Your task to perform on an android device: Clear the cart on target.com. Search for logitech g910 on target.com, select the first entry, add it to the cart, then select checkout. Image 0: 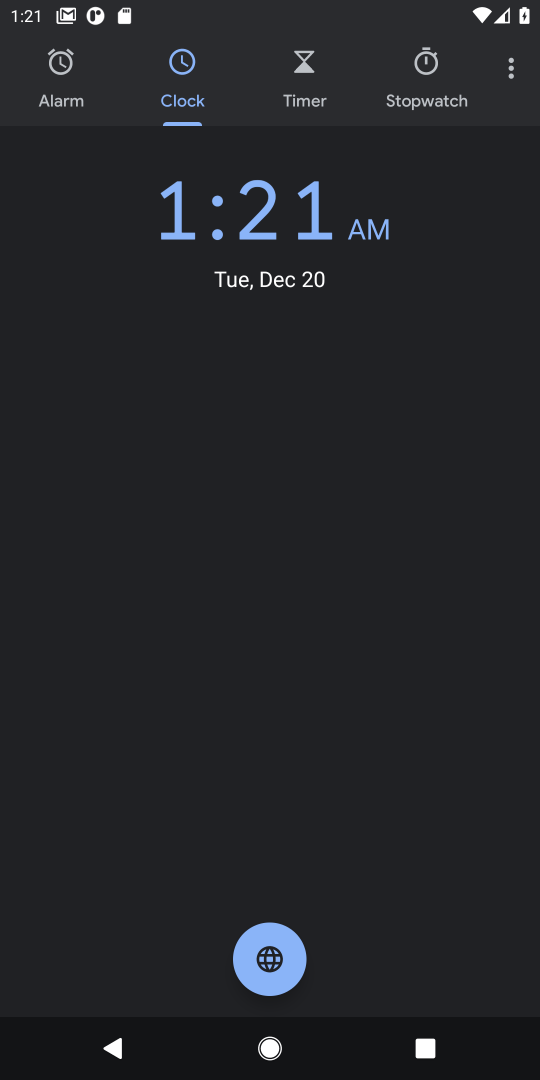
Step 0: press home button
Your task to perform on an android device: Clear the cart on target.com. Search for logitech g910 on target.com, select the first entry, add it to the cart, then select checkout. Image 1: 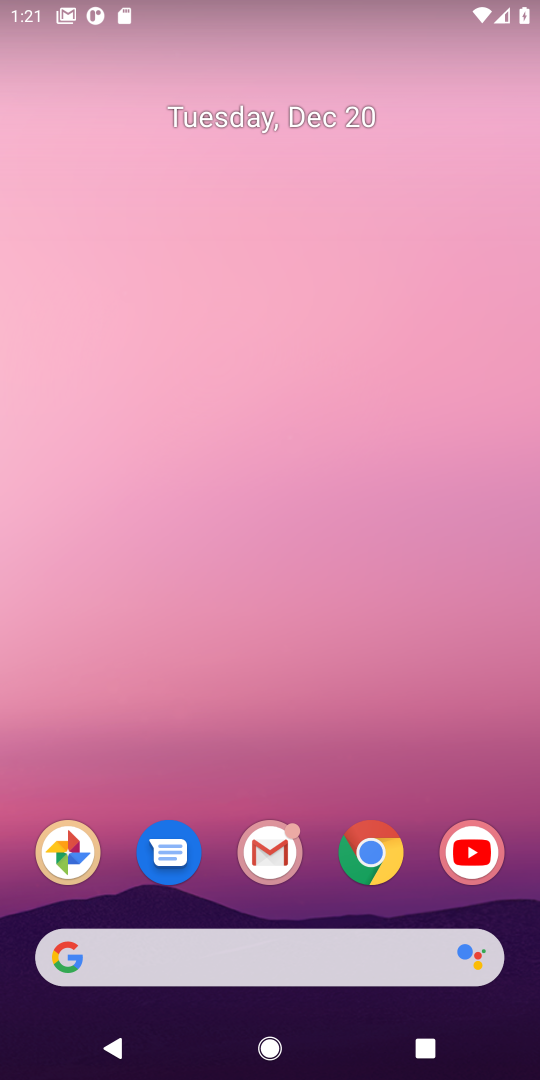
Step 1: click (371, 857)
Your task to perform on an android device: Clear the cart on target.com. Search for logitech g910 on target.com, select the first entry, add it to the cart, then select checkout. Image 2: 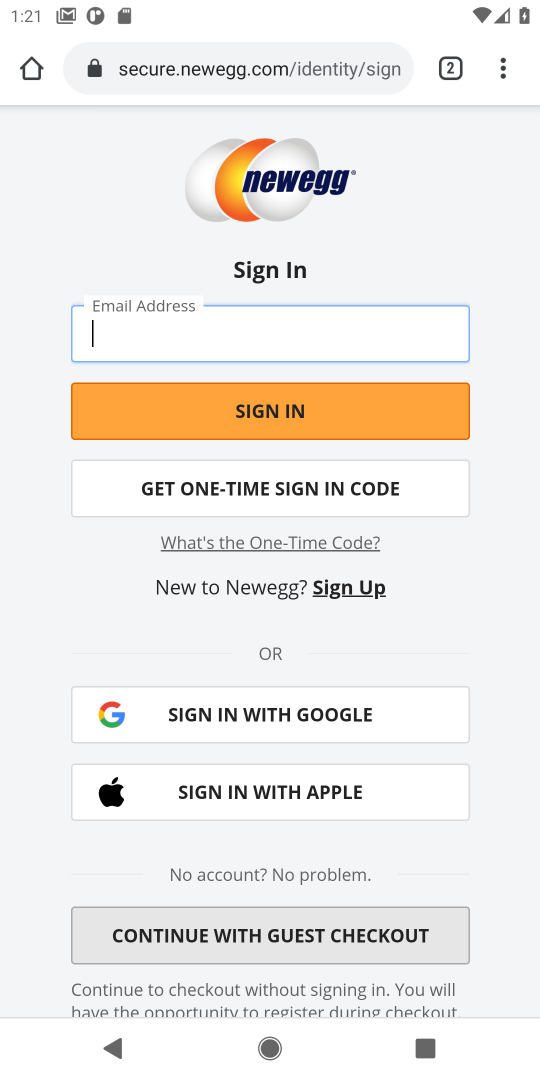
Step 2: click (216, 72)
Your task to perform on an android device: Clear the cart on target.com. Search for logitech g910 on target.com, select the first entry, add it to the cart, then select checkout. Image 3: 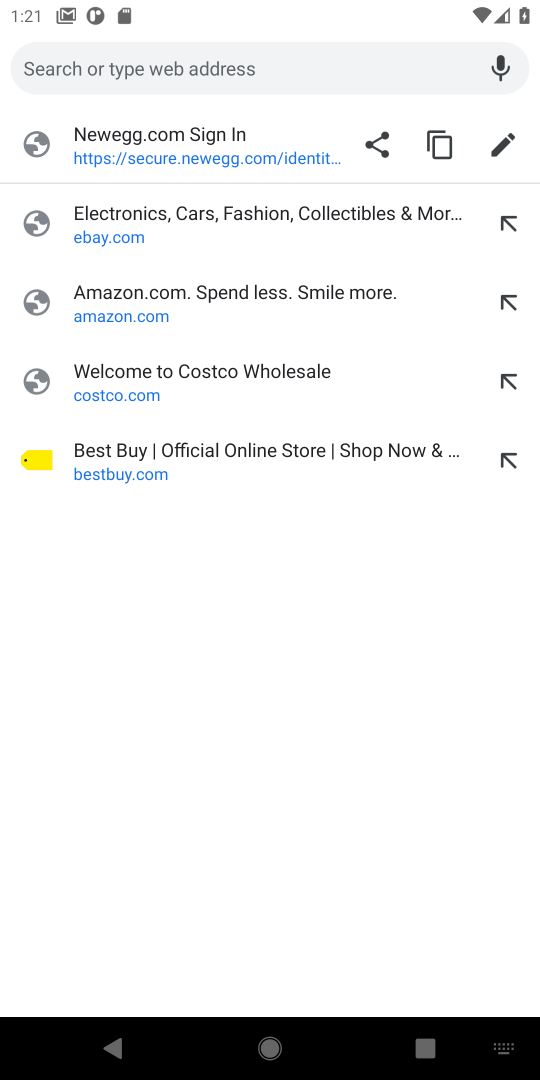
Step 3: type "target.com"
Your task to perform on an android device: Clear the cart on target.com. Search for logitech g910 on target.com, select the first entry, add it to the cart, then select checkout. Image 4: 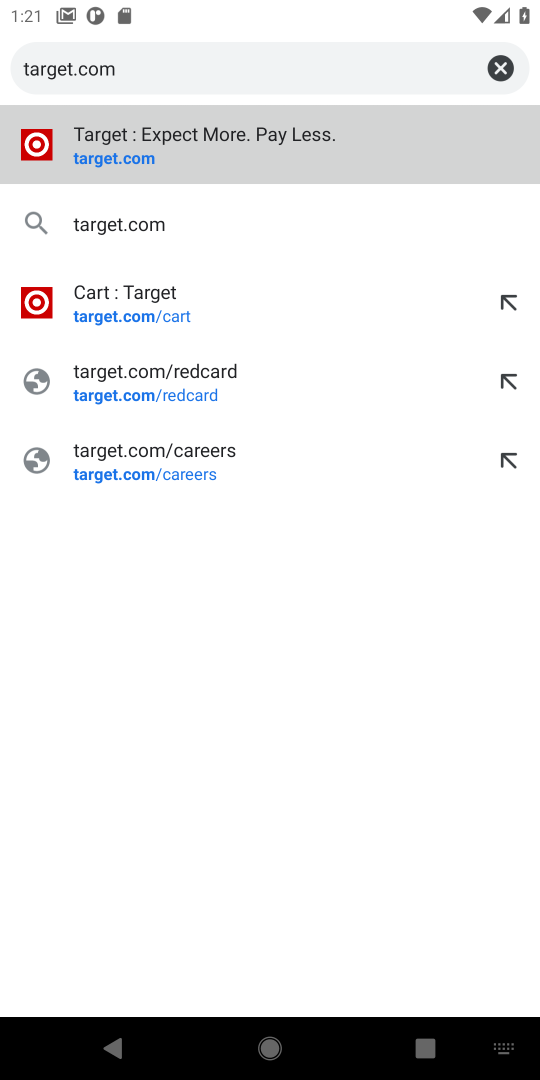
Step 4: click (100, 163)
Your task to perform on an android device: Clear the cart on target.com. Search for logitech g910 on target.com, select the first entry, add it to the cart, then select checkout. Image 5: 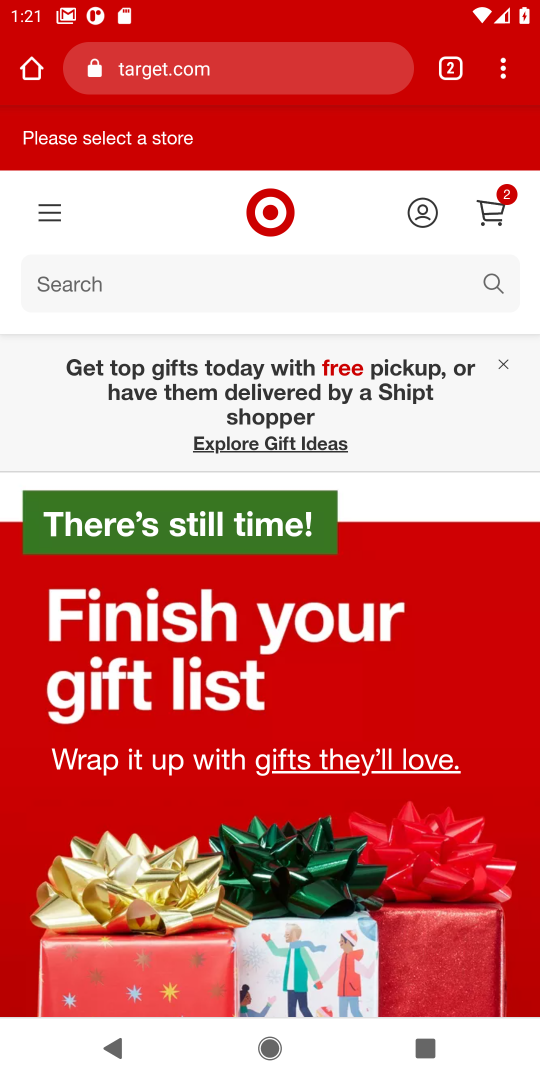
Step 5: click (492, 216)
Your task to perform on an android device: Clear the cart on target.com. Search for logitech g910 on target.com, select the first entry, add it to the cart, then select checkout. Image 6: 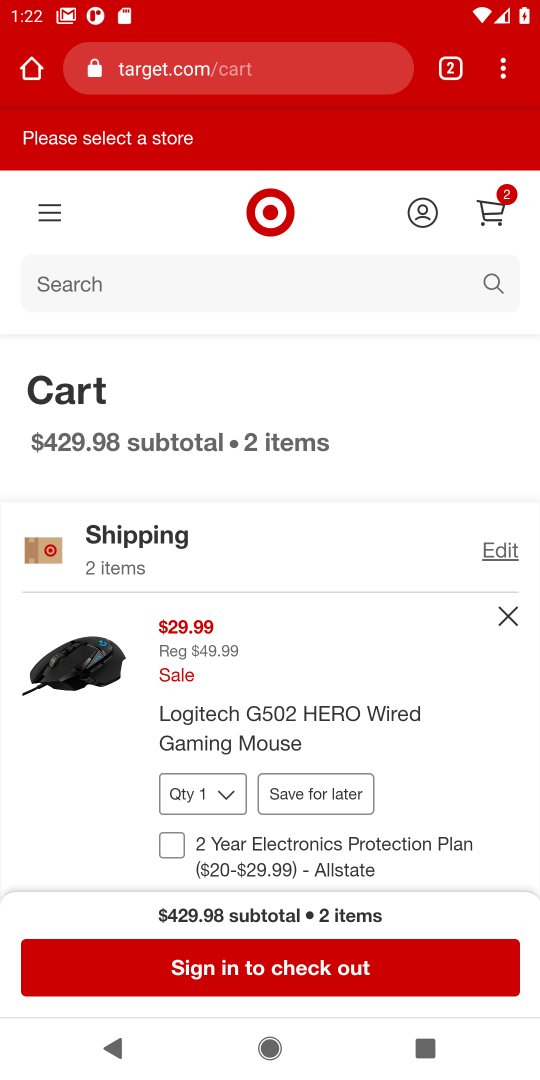
Step 6: click (501, 620)
Your task to perform on an android device: Clear the cart on target.com. Search for logitech g910 on target.com, select the first entry, add it to the cart, then select checkout. Image 7: 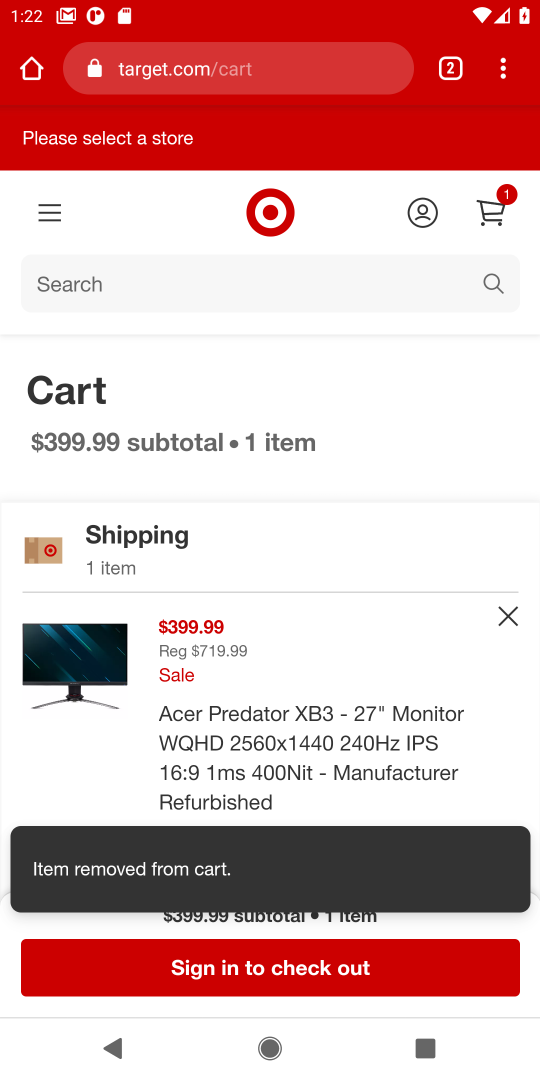
Step 7: click (502, 625)
Your task to perform on an android device: Clear the cart on target.com. Search for logitech g910 on target.com, select the first entry, add it to the cart, then select checkout. Image 8: 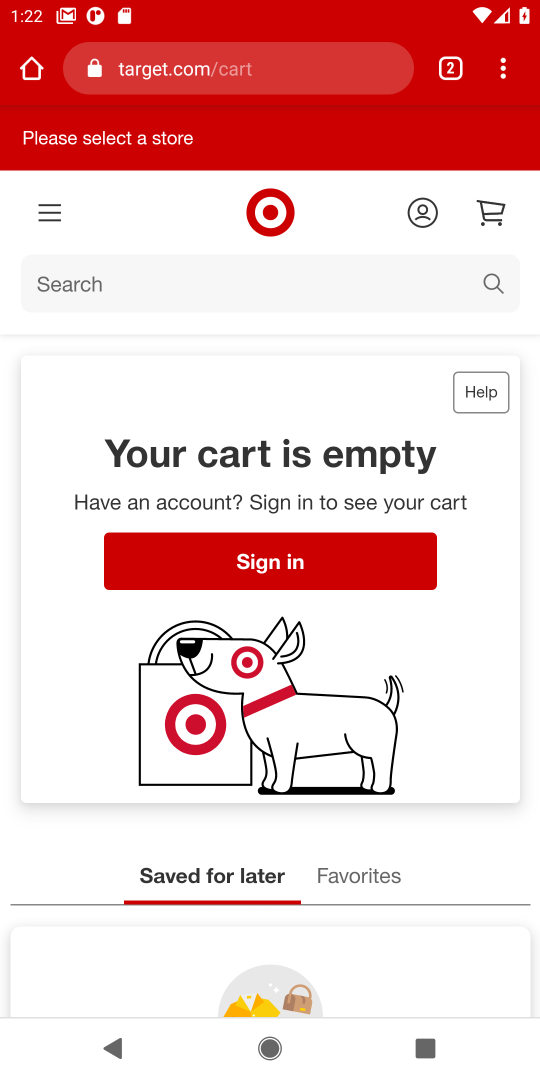
Step 8: click (43, 280)
Your task to perform on an android device: Clear the cart on target.com. Search for logitech g910 on target.com, select the first entry, add it to the cart, then select checkout. Image 9: 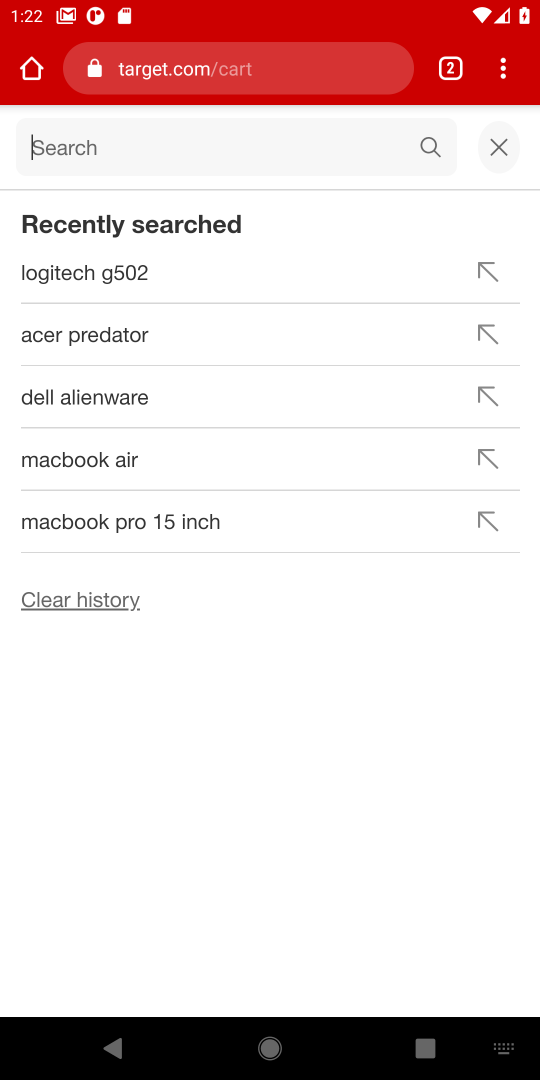
Step 9: type "logitech g910"
Your task to perform on an android device: Clear the cart on target.com. Search for logitech g910 on target.com, select the first entry, add it to the cart, then select checkout. Image 10: 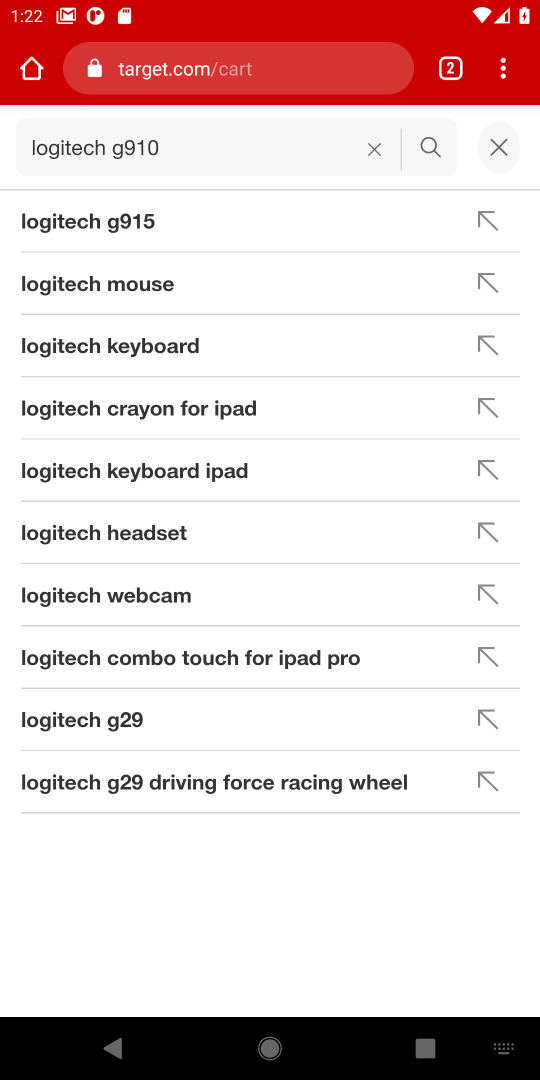
Step 10: click (429, 148)
Your task to perform on an android device: Clear the cart on target.com. Search for logitech g910 on target.com, select the first entry, add it to the cart, then select checkout. Image 11: 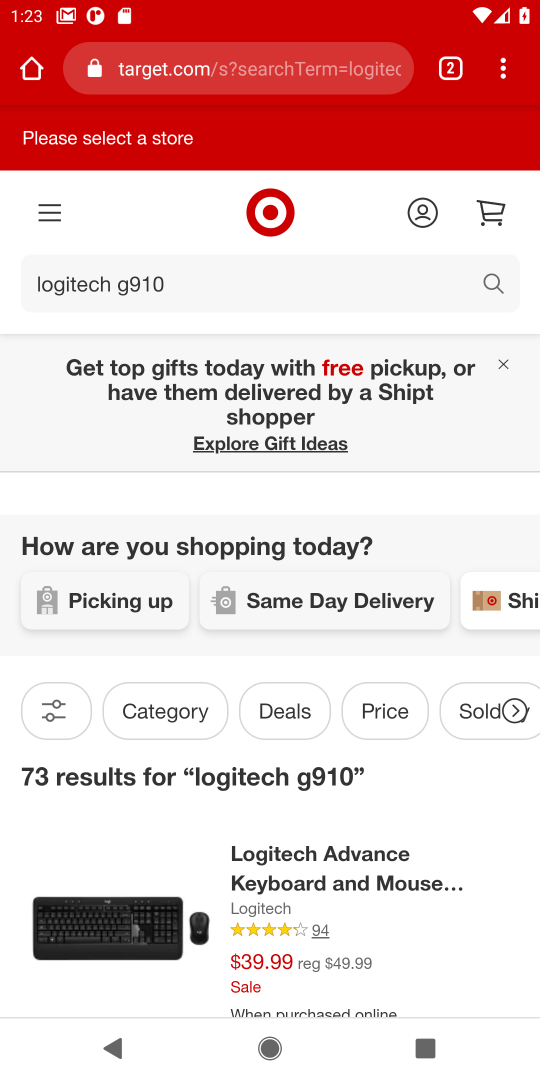
Step 11: drag from (235, 768) to (246, 445)
Your task to perform on an android device: Clear the cart on target.com. Search for logitech g910 on target.com, select the first entry, add it to the cart, then select checkout. Image 12: 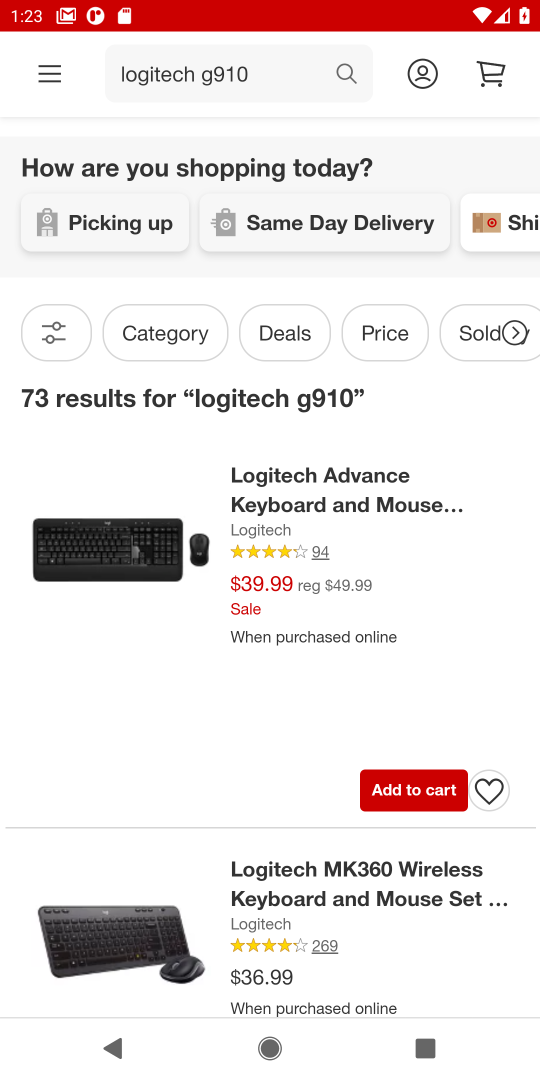
Step 12: click (436, 503)
Your task to perform on an android device: Clear the cart on target.com. Search for logitech g910 on target.com, select the first entry, add it to the cart, then select checkout. Image 13: 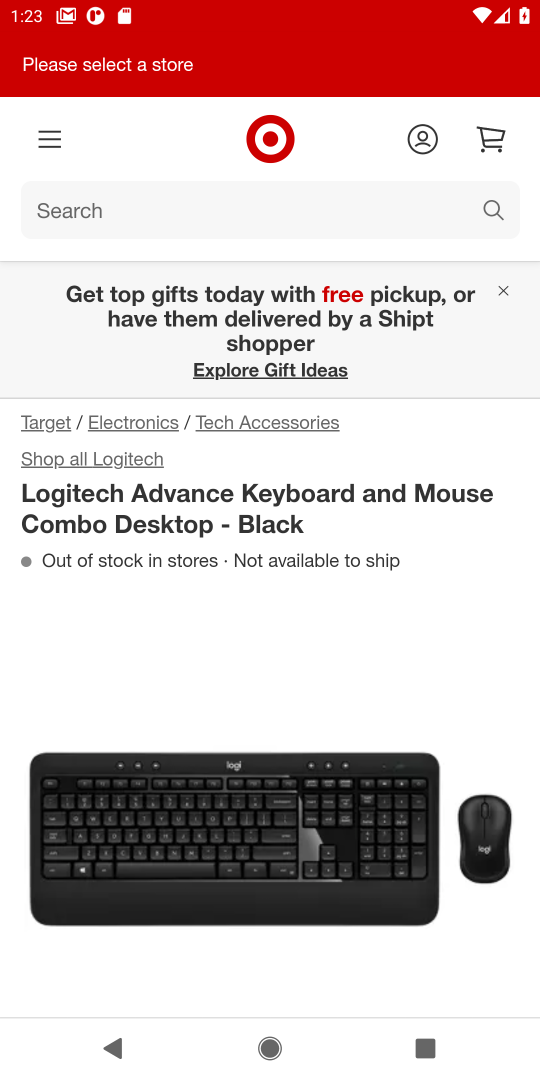
Step 13: task complete